Your task to perform on an android device: Find coffee shops on Maps Image 0: 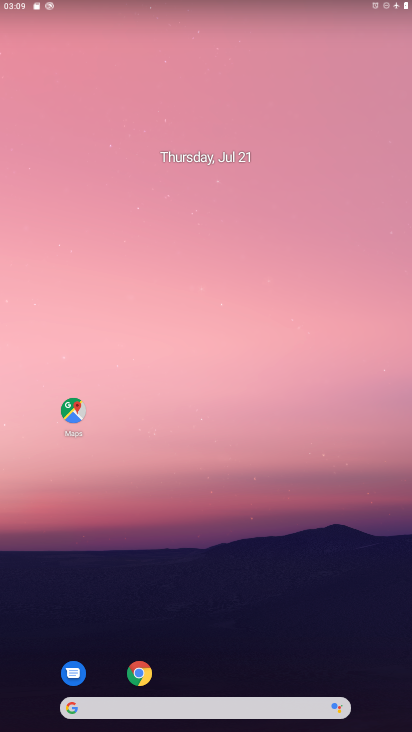
Step 0: drag from (254, 614) to (237, 246)
Your task to perform on an android device: Find coffee shops on Maps Image 1: 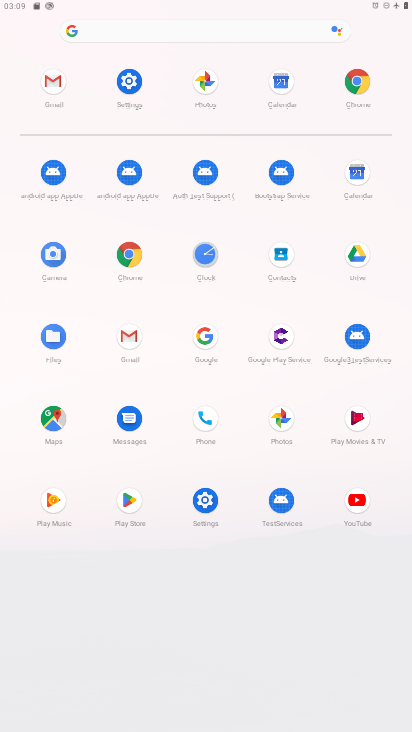
Step 1: click (46, 410)
Your task to perform on an android device: Find coffee shops on Maps Image 2: 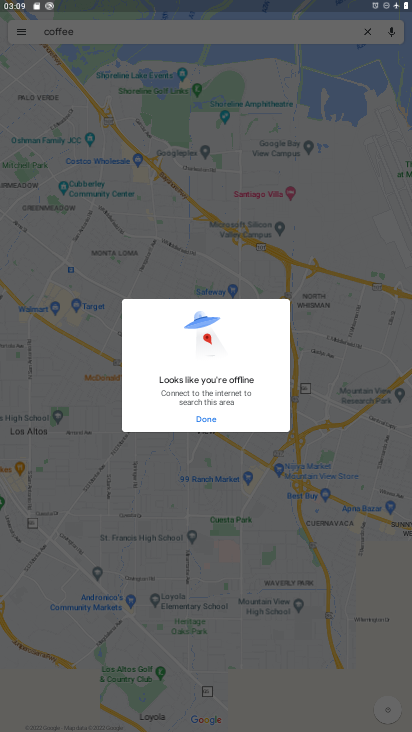
Step 2: click (211, 415)
Your task to perform on an android device: Find coffee shops on Maps Image 3: 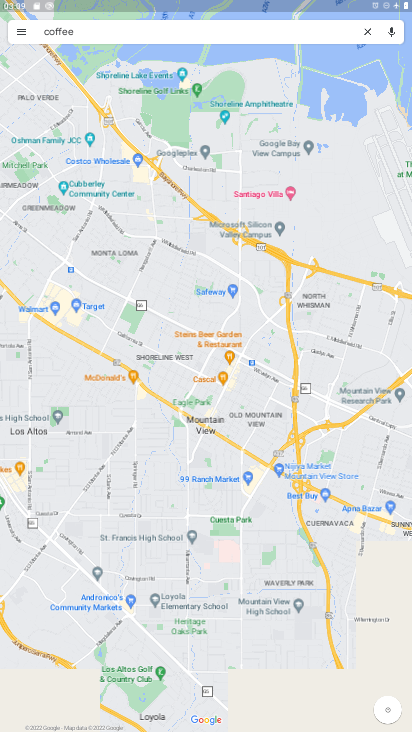
Step 3: click (362, 31)
Your task to perform on an android device: Find coffee shops on Maps Image 4: 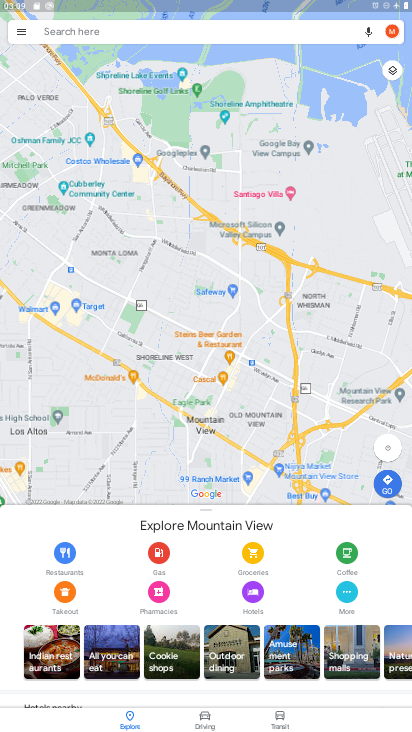
Step 4: click (205, 31)
Your task to perform on an android device: Find coffee shops on Maps Image 5: 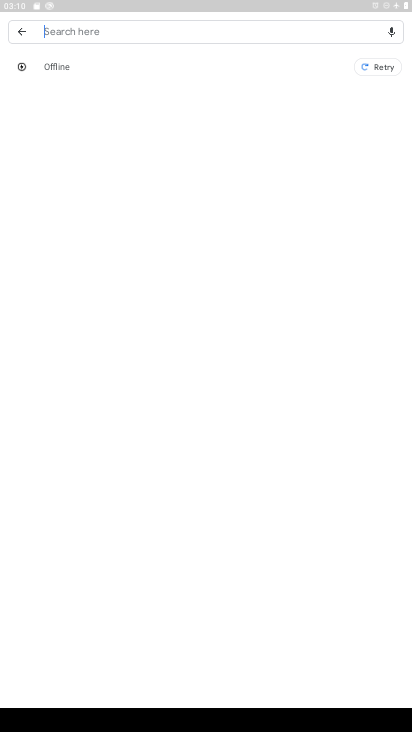
Step 5: click (163, 21)
Your task to perform on an android device: Find coffee shops on Maps Image 6: 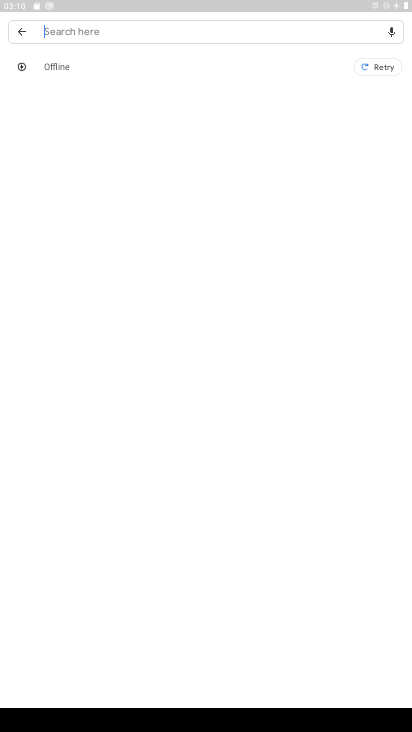
Step 6: type "coffee shops "
Your task to perform on an android device: Find coffee shops on Maps Image 7: 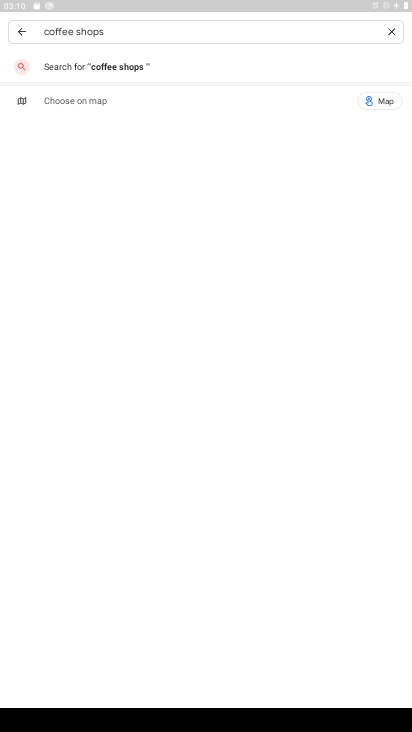
Step 7: click (137, 57)
Your task to perform on an android device: Find coffee shops on Maps Image 8: 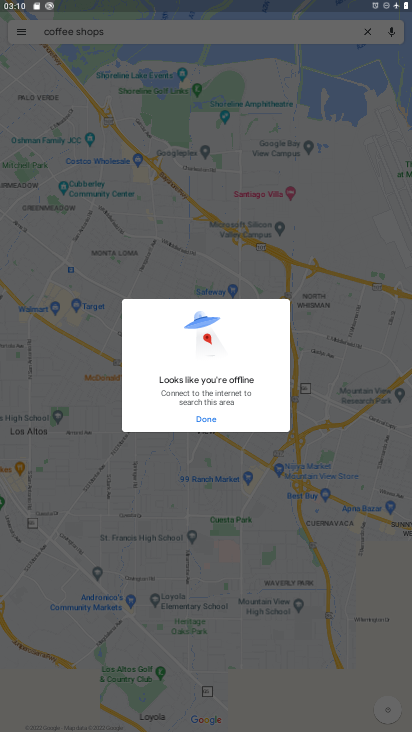
Step 8: task complete